Your task to perform on an android device: uninstall "Airtel Thanks" Image 0: 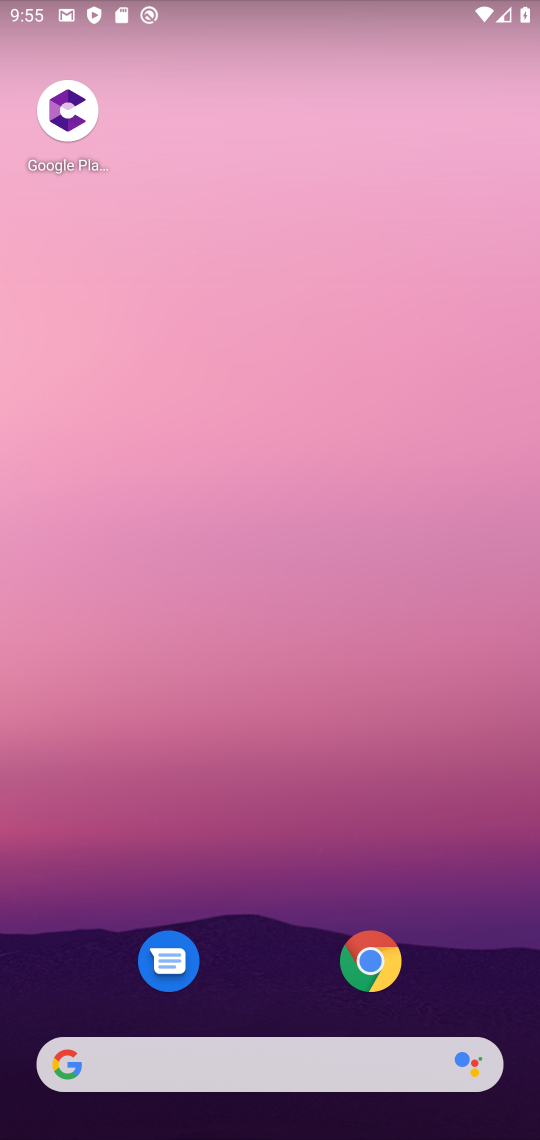
Step 0: drag from (250, 1003) to (253, 148)
Your task to perform on an android device: uninstall "Airtel Thanks" Image 1: 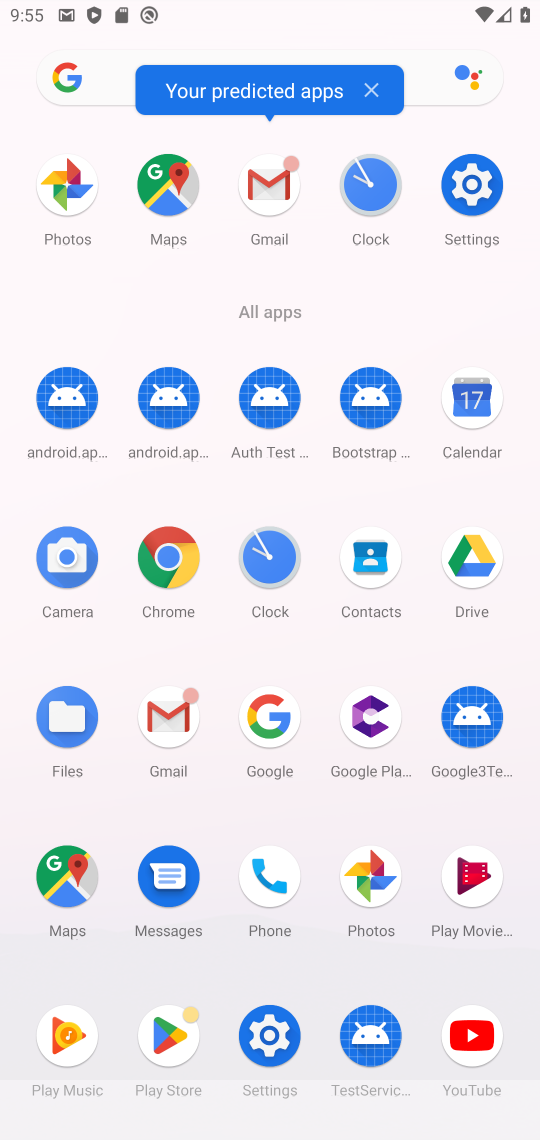
Step 1: click (162, 1042)
Your task to perform on an android device: uninstall "Airtel Thanks" Image 2: 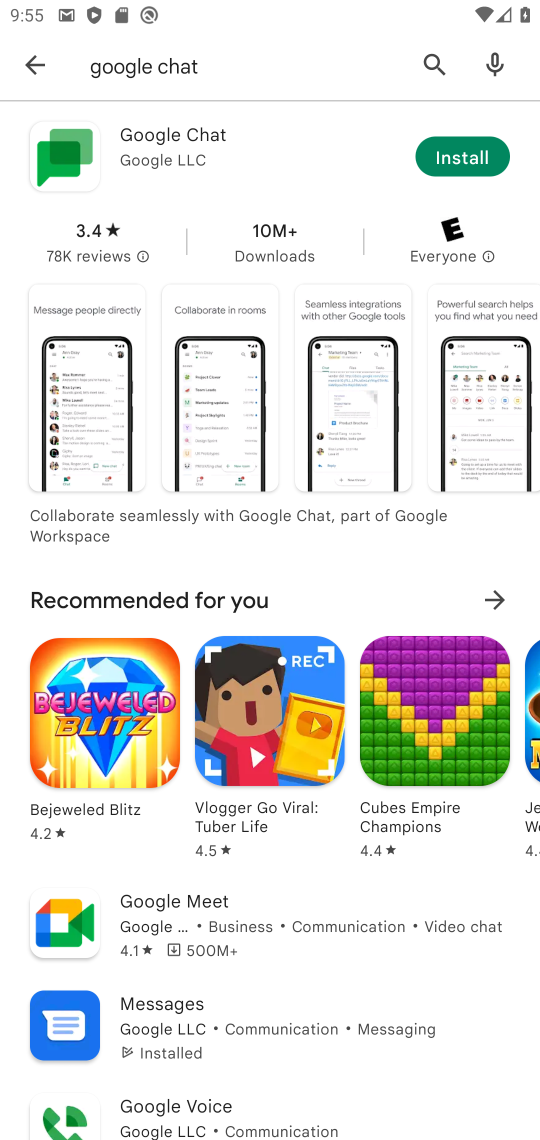
Step 2: click (434, 65)
Your task to perform on an android device: uninstall "Airtel Thanks" Image 3: 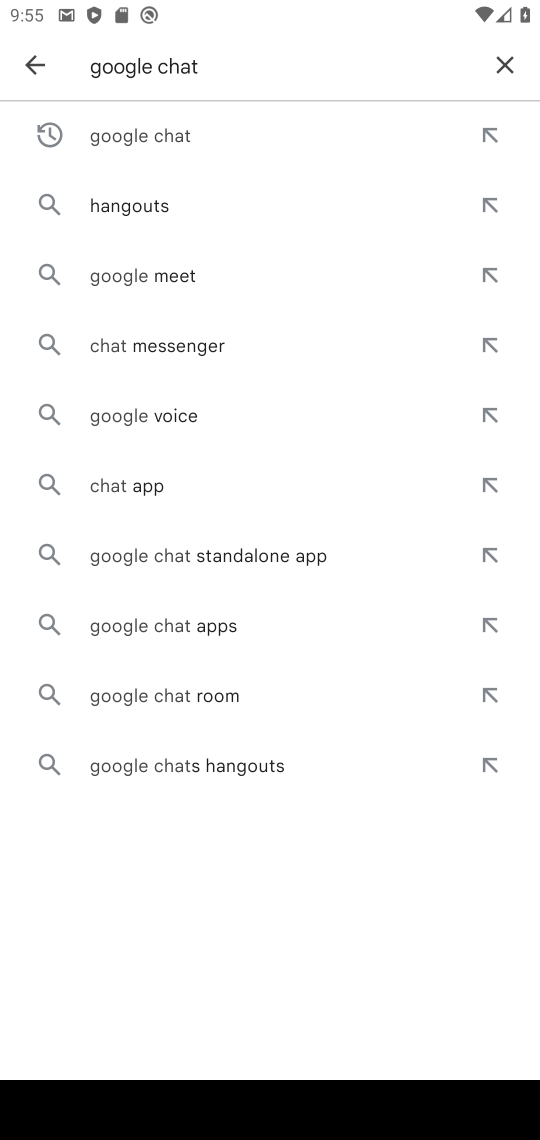
Step 3: click (514, 64)
Your task to perform on an android device: uninstall "Airtel Thanks" Image 4: 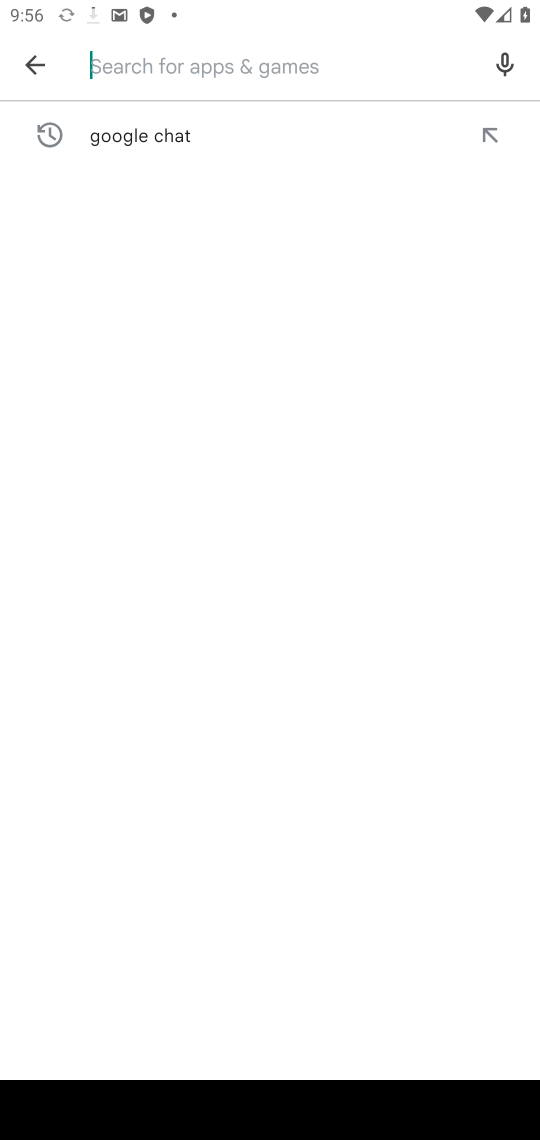
Step 4: type "airtel thanks"
Your task to perform on an android device: uninstall "Airtel Thanks" Image 5: 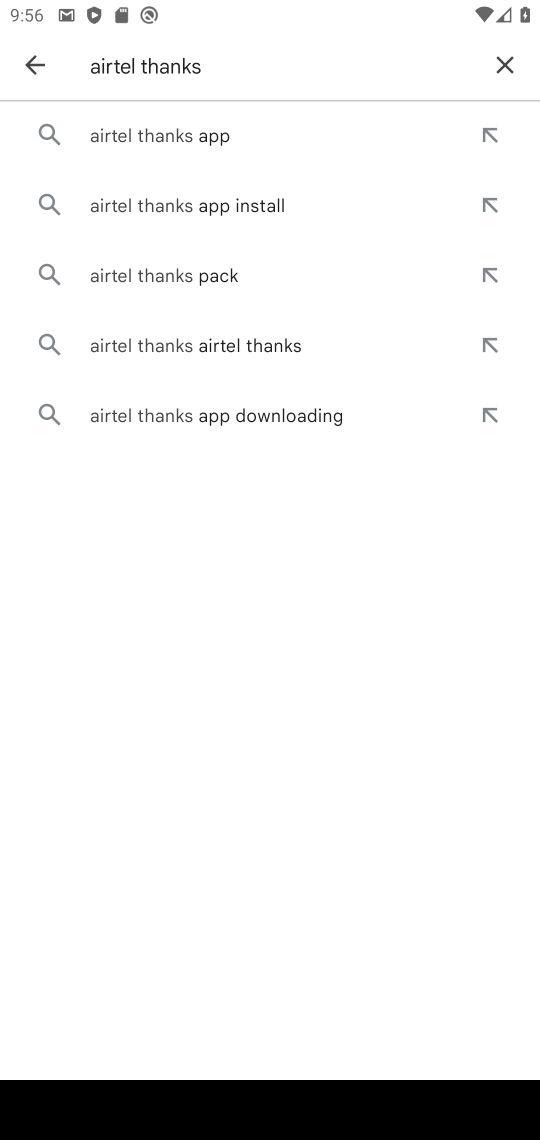
Step 5: click (218, 145)
Your task to perform on an android device: uninstall "Airtel Thanks" Image 6: 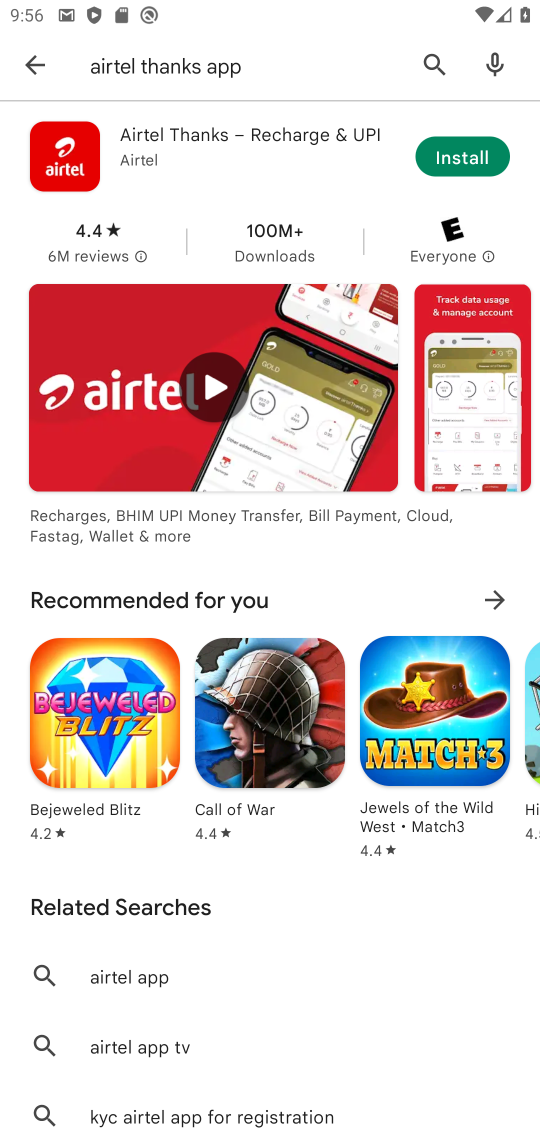
Step 6: task complete